Your task to perform on an android device: check battery use Image 0: 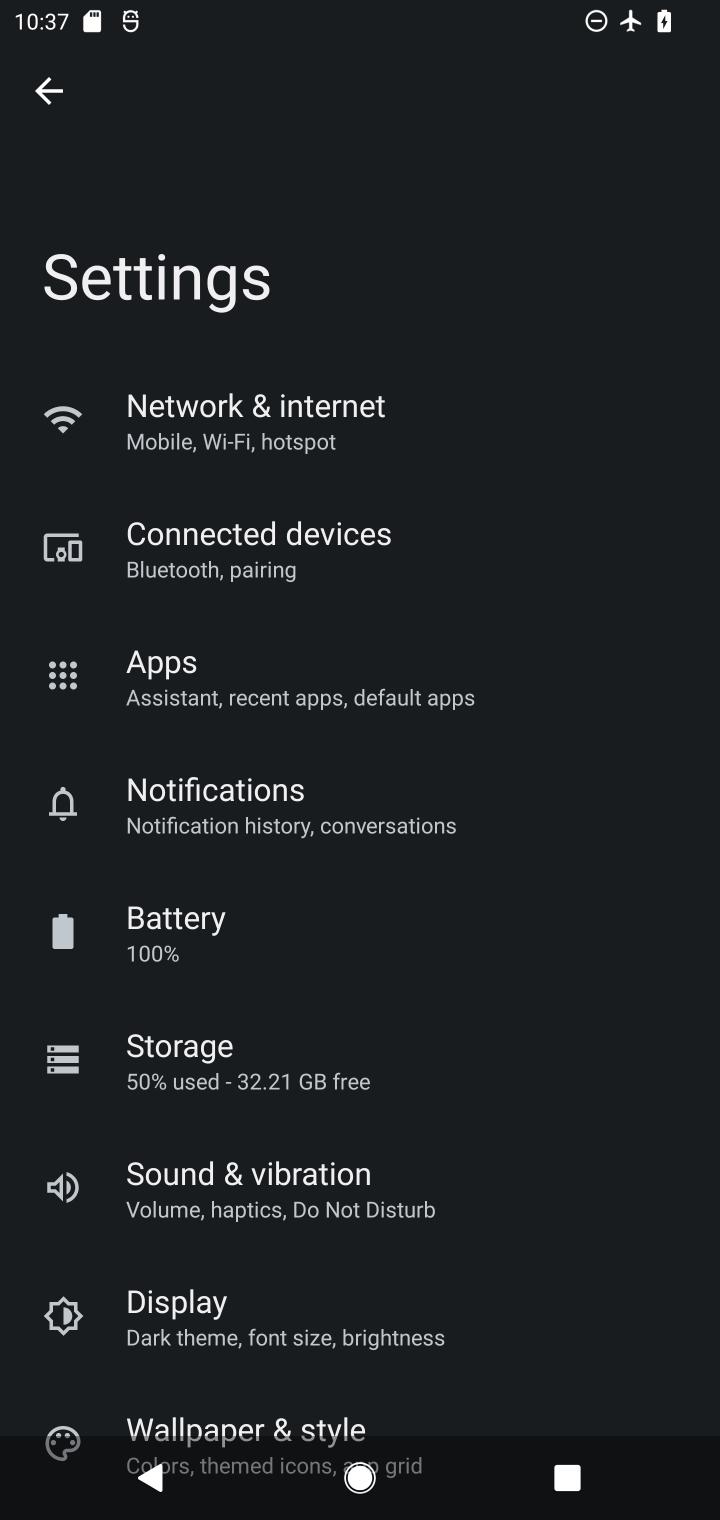
Step 0: click (173, 973)
Your task to perform on an android device: check battery use Image 1: 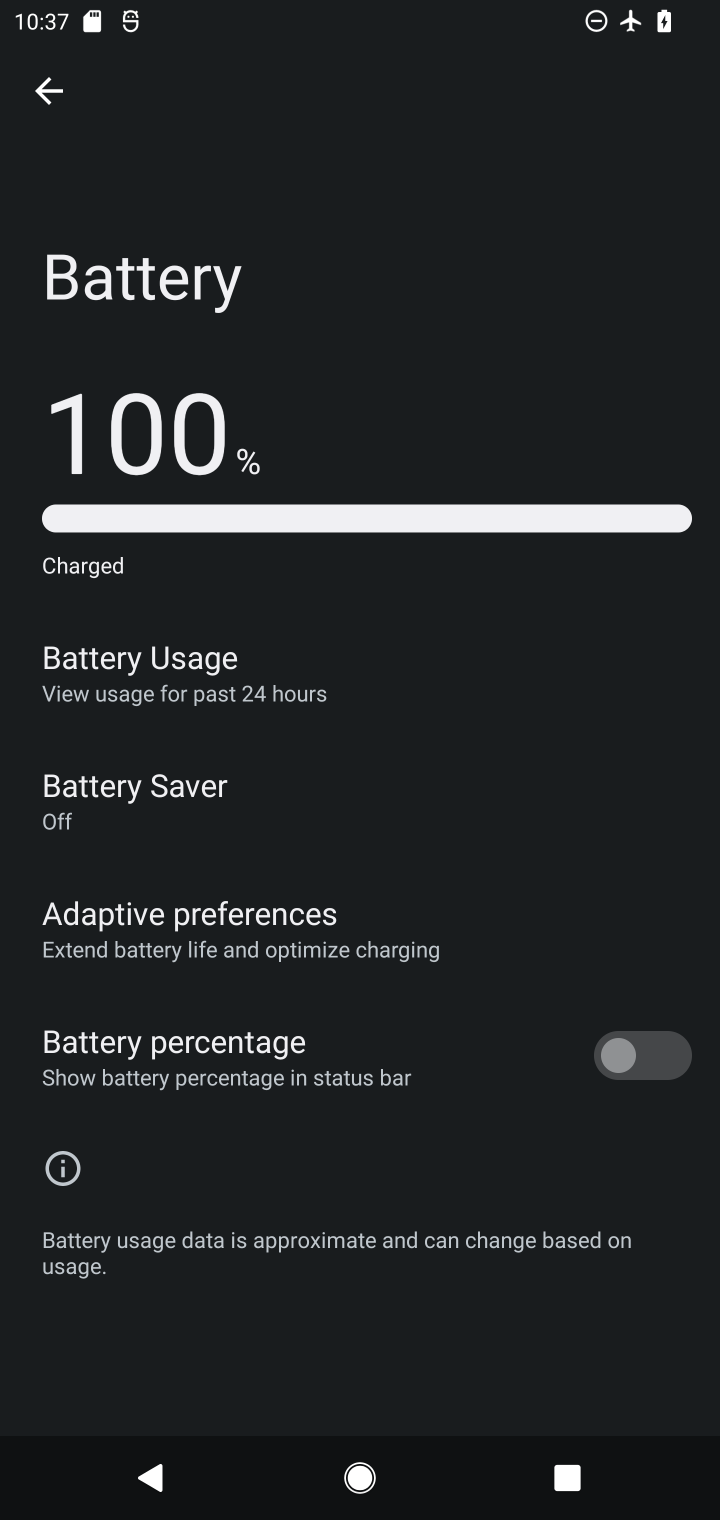
Step 1: task complete